Your task to perform on an android device: add a contact in the contacts app Image 0: 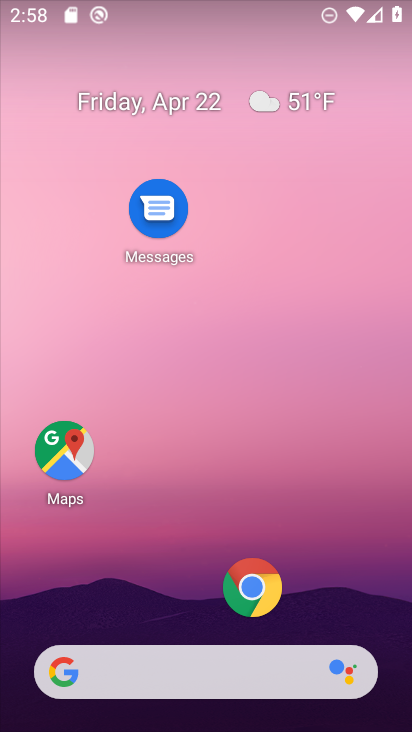
Step 0: drag from (191, 609) to (200, 168)
Your task to perform on an android device: add a contact in the contacts app Image 1: 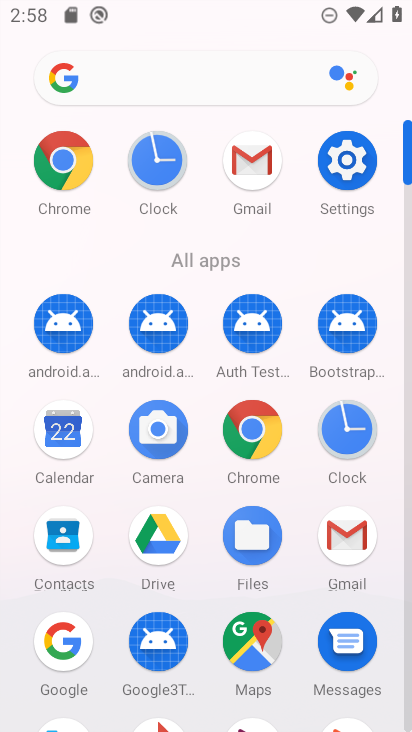
Step 1: click (64, 544)
Your task to perform on an android device: add a contact in the contacts app Image 2: 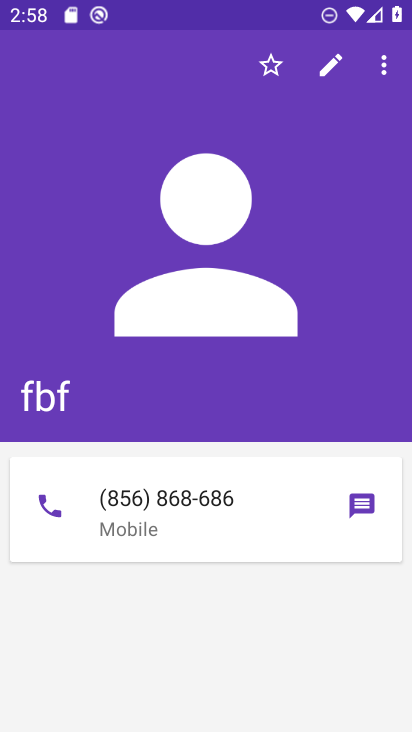
Step 2: press back button
Your task to perform on an android device: add a contact in the contacts app Image 3: 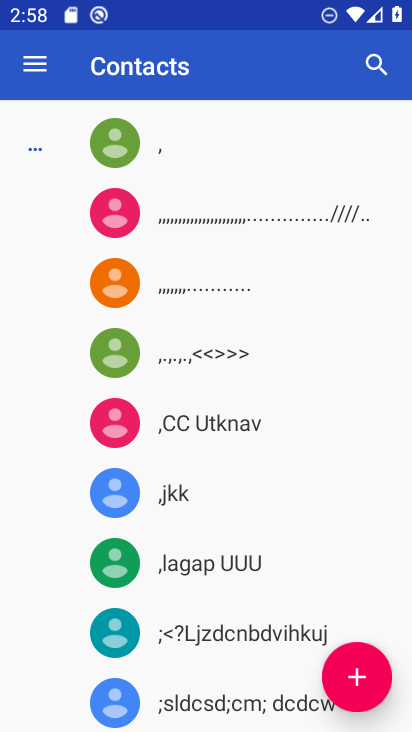
Step 3: click (370, 675)
Your task to perform on an android device: add a contact in the contacts app Image 4: 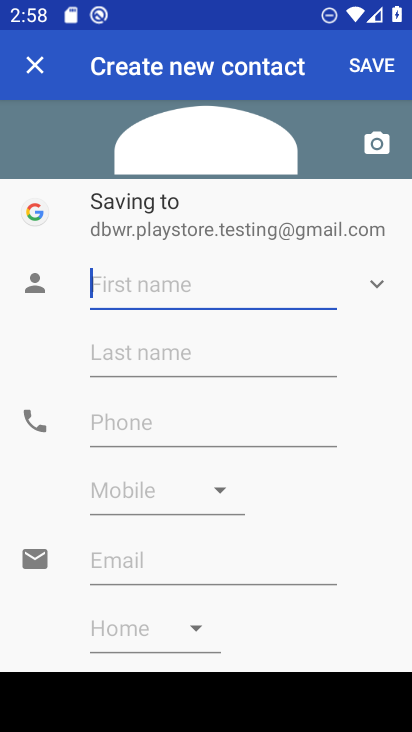
Step 4: type "vvkhh"
Your task to perform on an android device: add a contact in the contacts app Image 5: 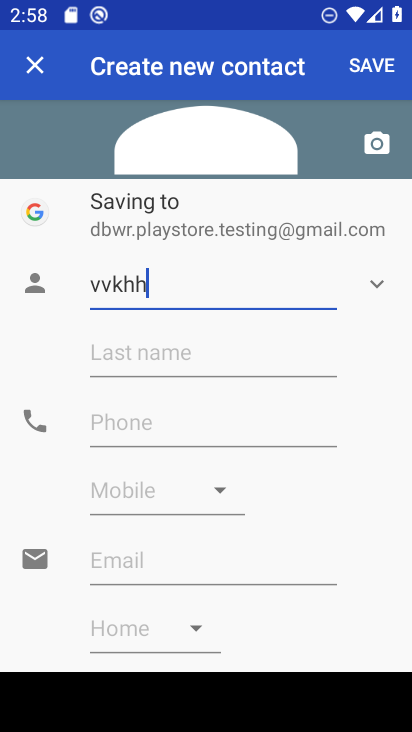
Step 5: click (166, 416)
Your task to perform on an android device: add a contact in the contacts app Image 6: 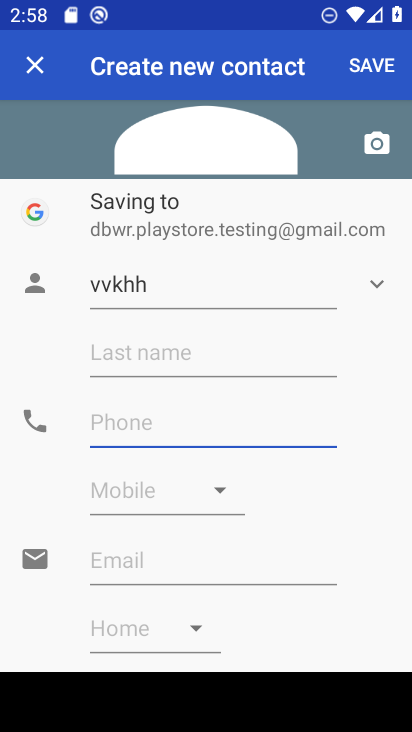
Step 6: type "9785765697"
Your task to perform on an android device: add a contact in the contacts app Image 7: 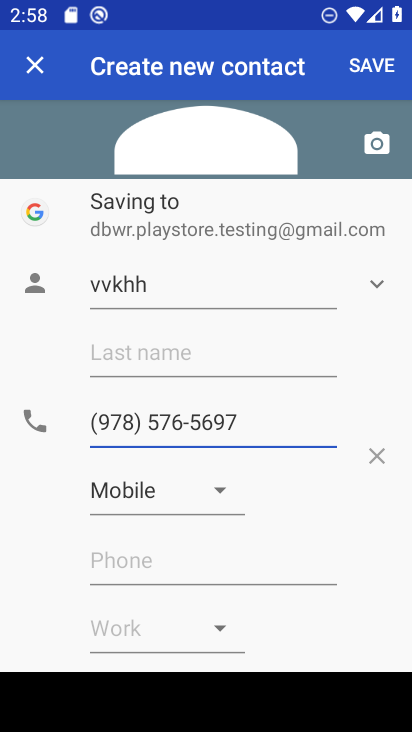
Step 7: click (360, 66)
Your task to perform on an android device: add a contact in the contacts app Image 8: 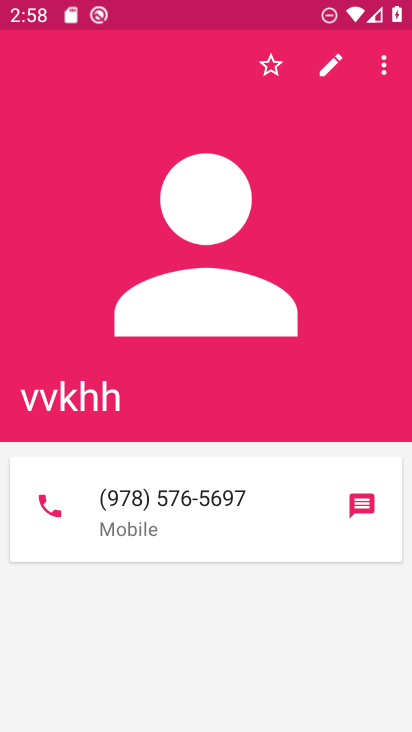
Step 8: task complete